Your task to perform on an android device: choose inbox layout in the gmail app Image 0: 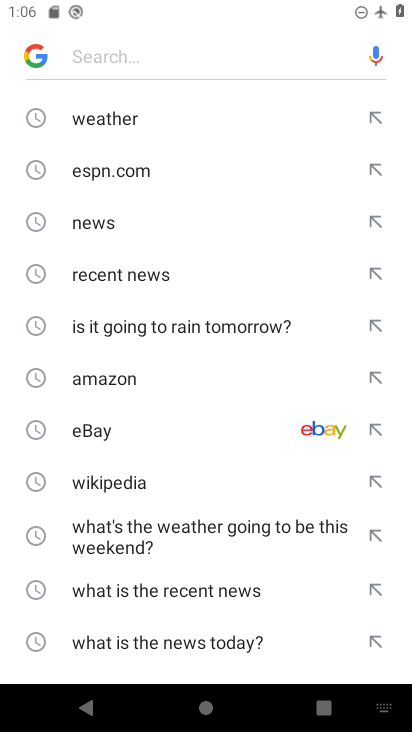
Step 0: press home button
Your task to perform on an android device: choose inbox layout in the gmail app Image 1: 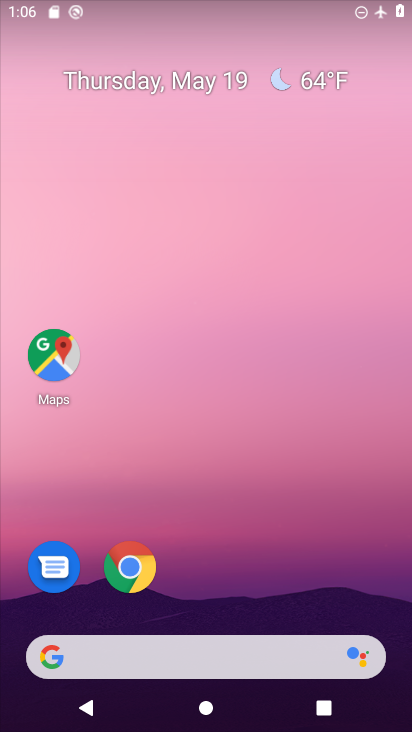
Step 1: drag from (217, 569) to (267, 144)
Your task to perform on an android device: choose inbox layout in the gmail app Image 2: 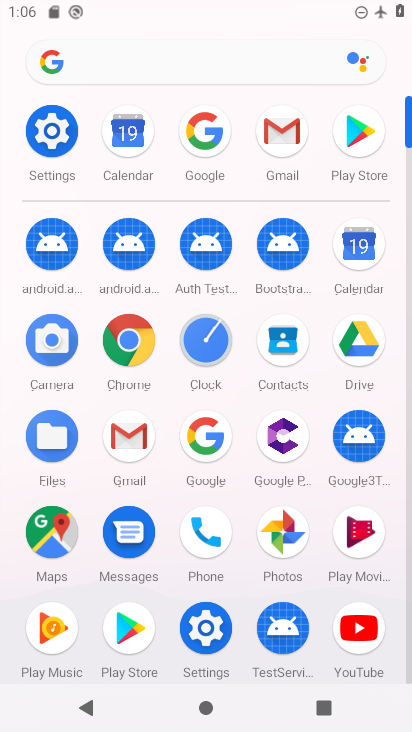
Step 2: click (278, 144)
Your task to perform on an android device: choose inbox layout in the gmail app Image 3: 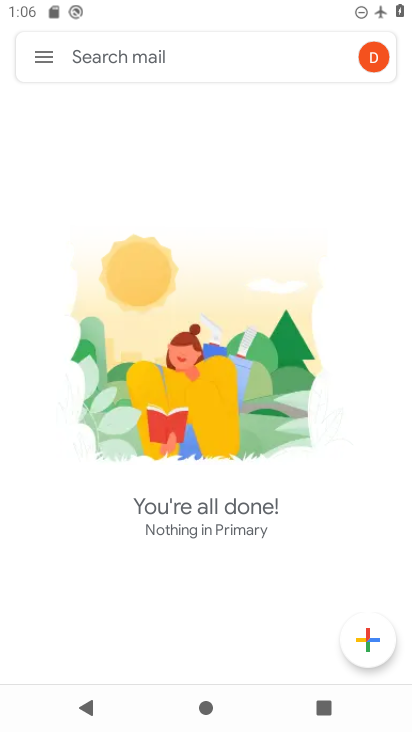
Step 3: click (50, 62)
Your task to perform on an android device: choose inbox layout in the gmail app Image 4: 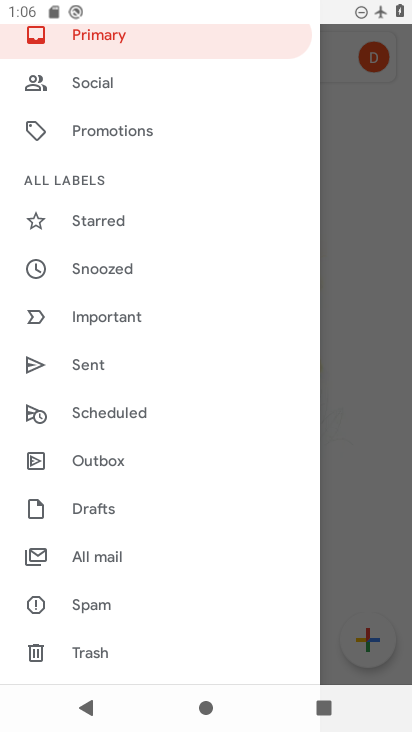
Step 4: drag from (209, 137) to (207, 274)
Your task to perform on an android device: choose inbox layout in the gmail app Image 5: 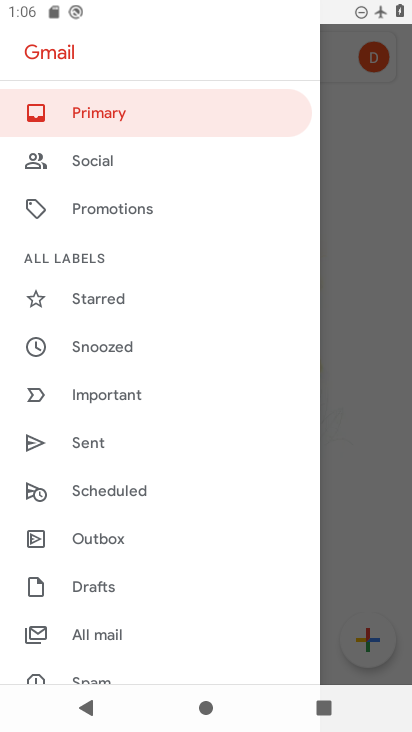
Step 5: drag from (153, 615) to (184, 236)
Your task to perform on an android device: choose inbox layout in the gmail app Image 6: 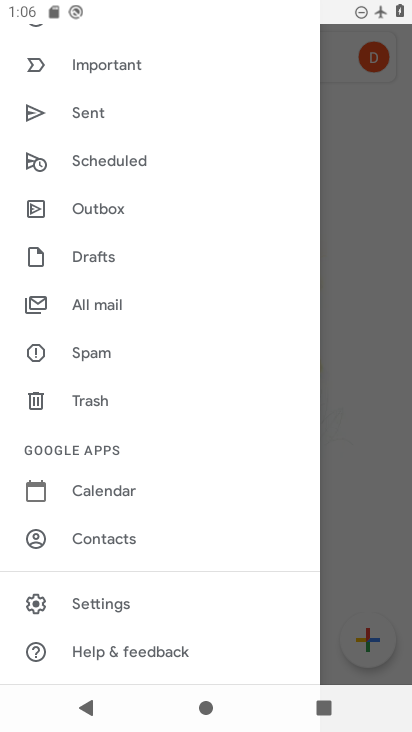
Step 6: click (127, 608)
Your task to perform on an android device: choose inbox layout in the gmail app Image 7: 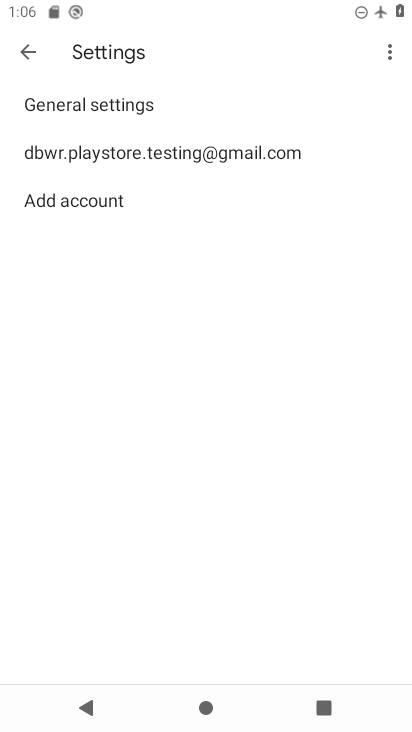
Step 7: click (131, 152)
Your task to perform on an android device: choose inbox layout in the gmail app Image 8: 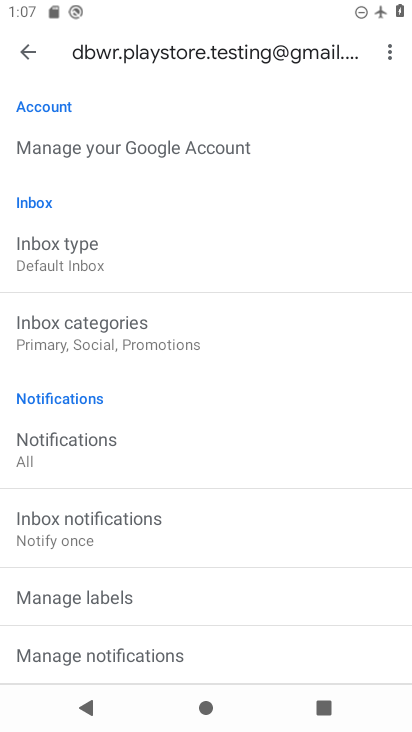
Step 8: click (91, 259)
Your task to perform on an android device: choose inbox layout in the gmail app Image 9: 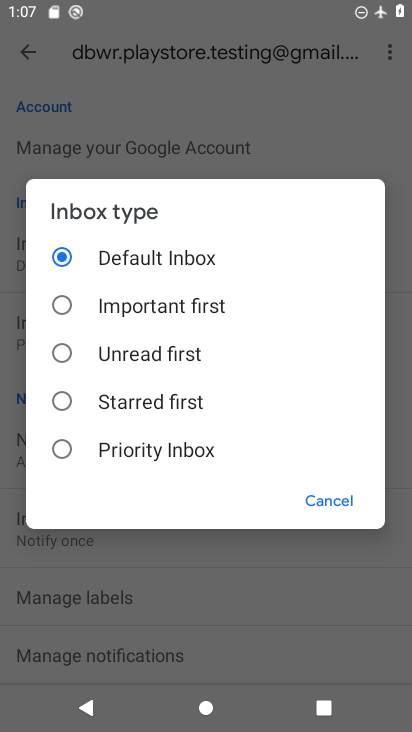
Step 9: click (102, 258)
Your task to perform on an android device: choose inbox layout in the gmail app Image 10: 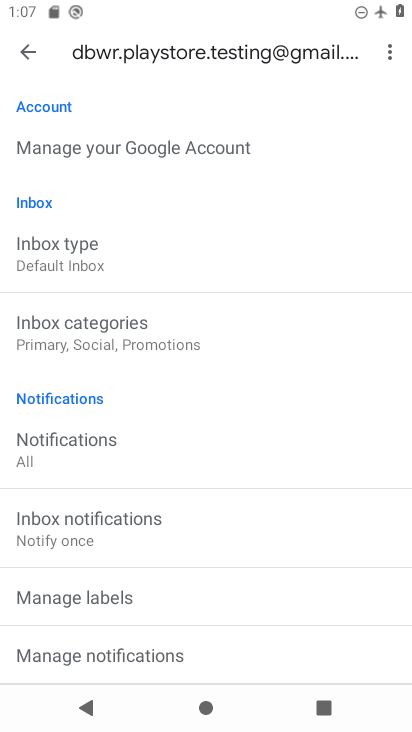
Step 10: press back button
Your task to perform on an android device: choose inbox layout in the gmail app Image 11: 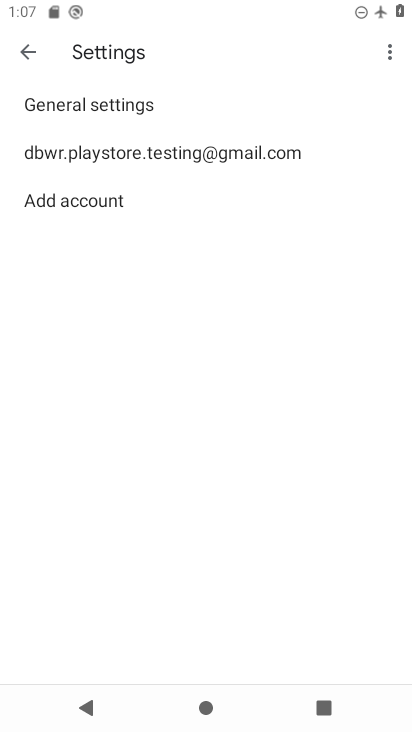
Step 11: press back button
Your task to perform on an android device: choose inbox layout in the gmail app Image 12: 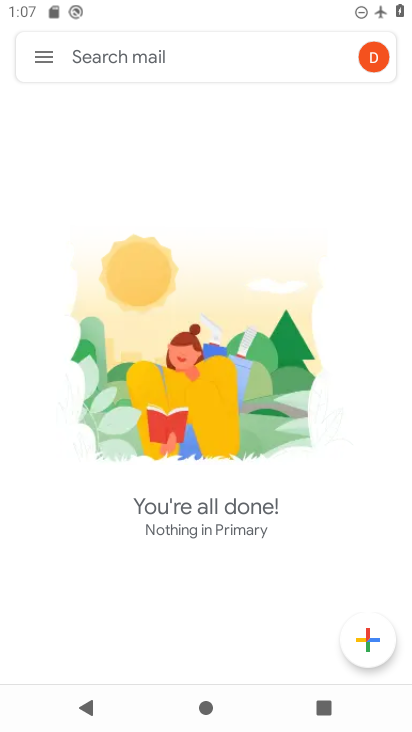
Step 12: click (29, 57)
Your task to perform on an android device: choose inbox layout in the gmail app Image 13: 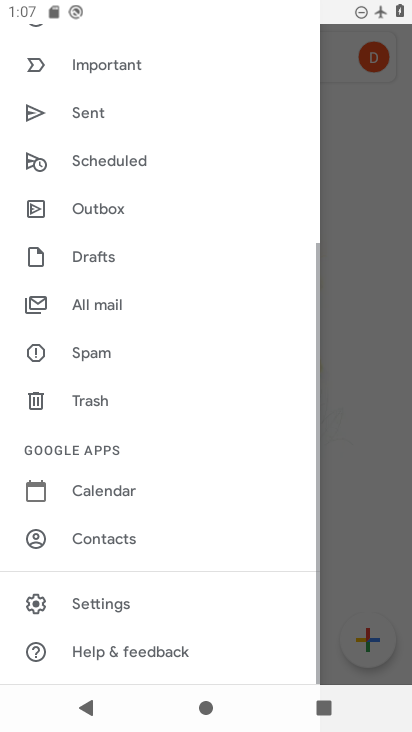
Step 13: drag from (144, 162) to (129, 643)
Your task to perform on an android device: choose inbox layout in the gmail app Image 14: 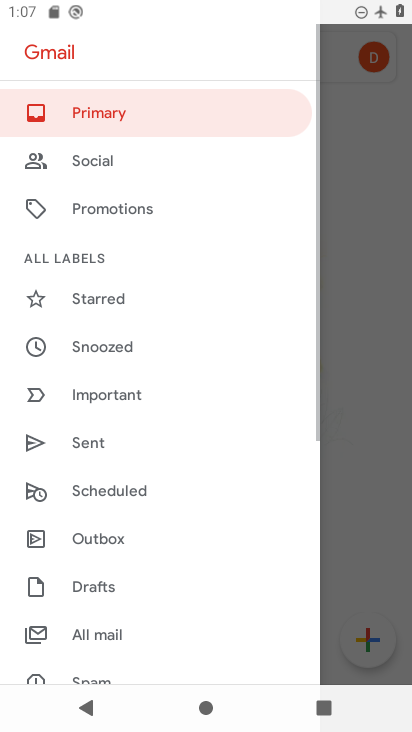
Step 14: click (366, 282)
Your task to perform on an android device: choose inbox layout in the gmail app Image 15: 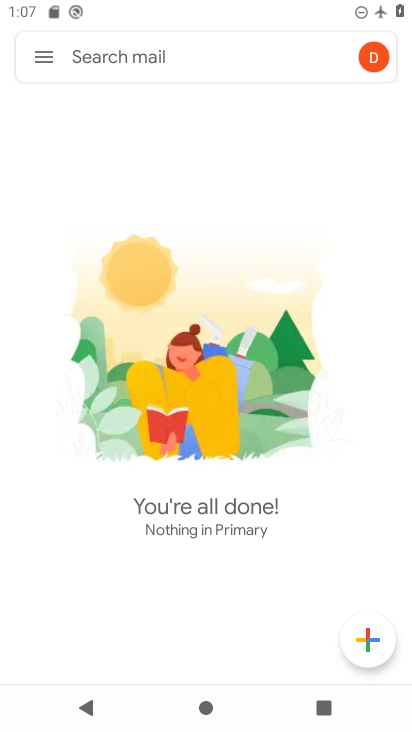
Step 15: task complete